Your task to perform on an android device: open app "Google Home" Image 0: 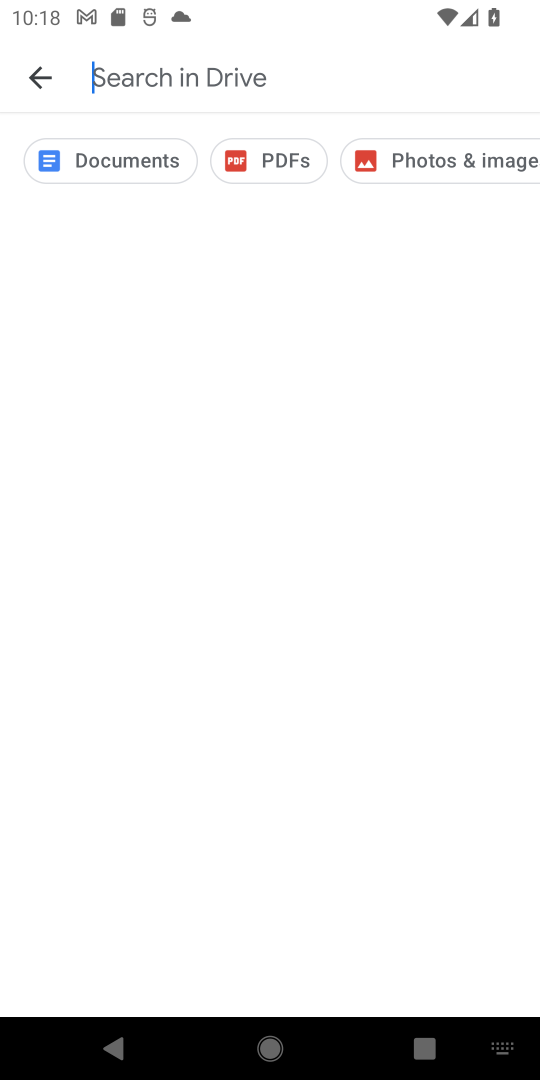
Step 0: press home button
Your task to perform on an android device: open app "Google Home" Image 1: 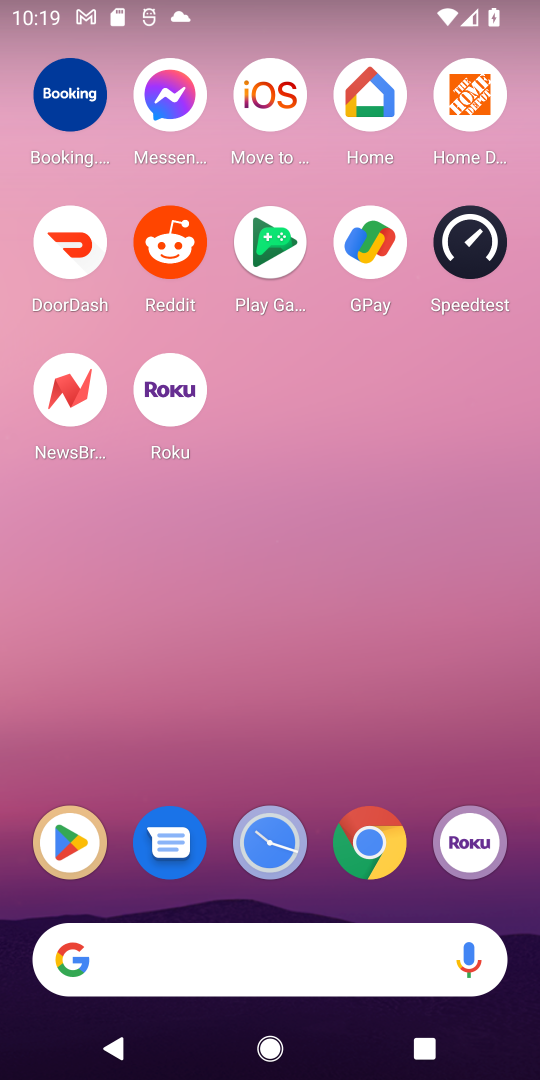
Step 1: click (68, 835)
Your task to perform on an android device: open app "Google Home" Image 2: 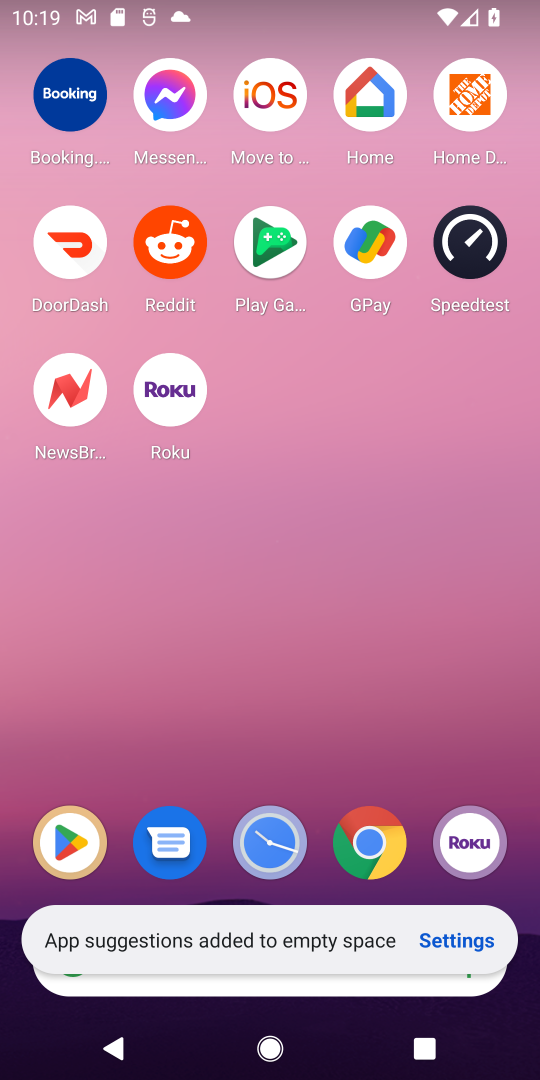
Step 2: click (63, 820)
Your task to perform on an android device: open app "Google Home" Image 3: 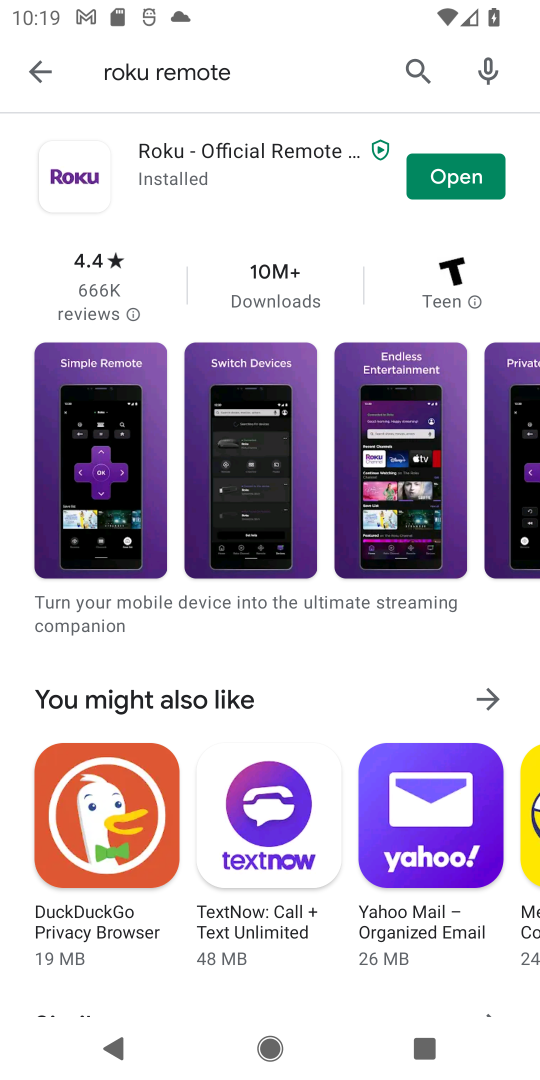
Step 3: click (415, 41)
Your task to perform on an android device: open app "Google Home" Image 4: 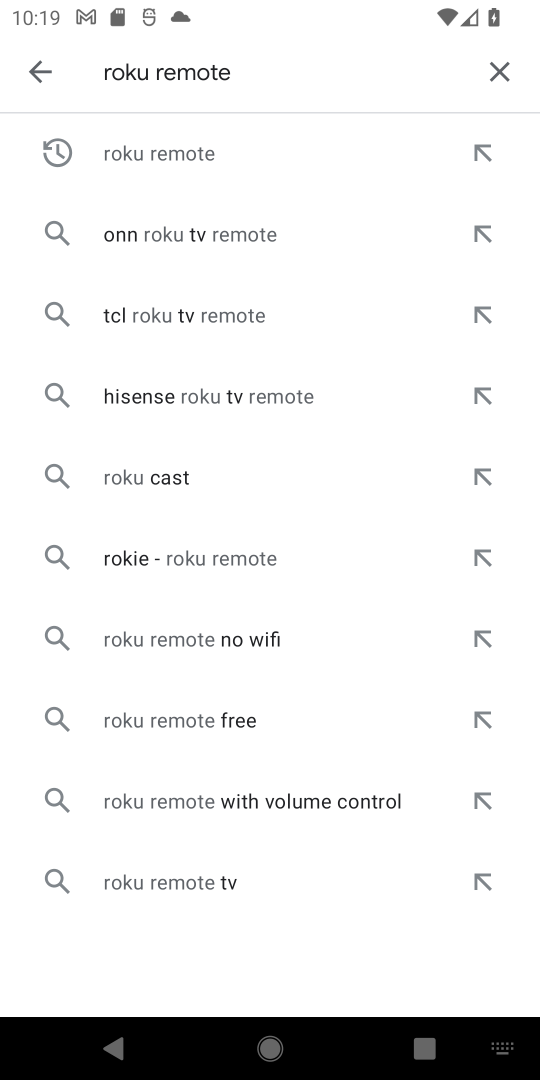
Step 4: click (489, 77)
Your task to perform on an android device: open app "Google Home" Image 5: 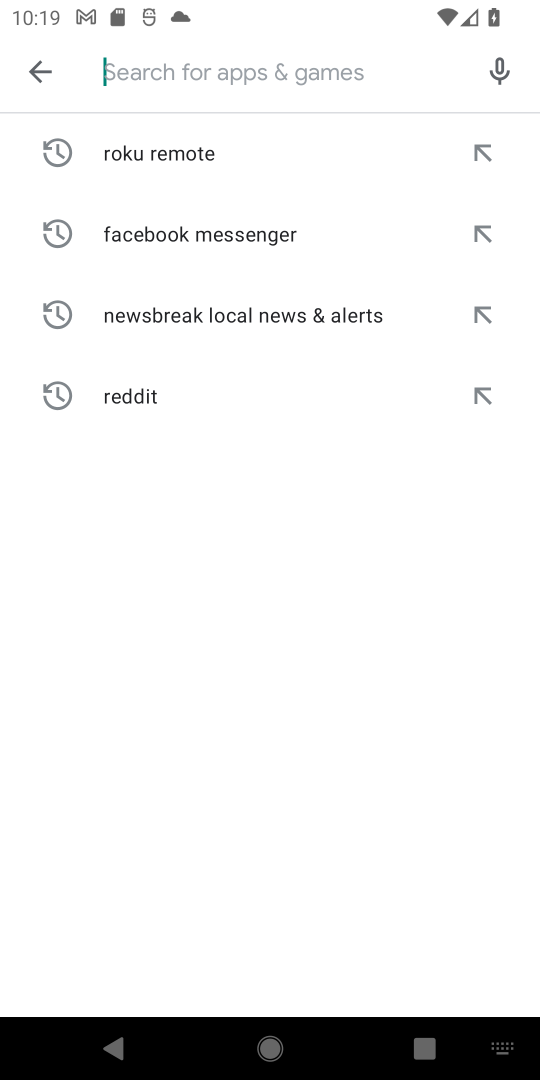
Step 5: click (179, 59)
Your task to perform on an android device: open app "Google Home" Image 6: 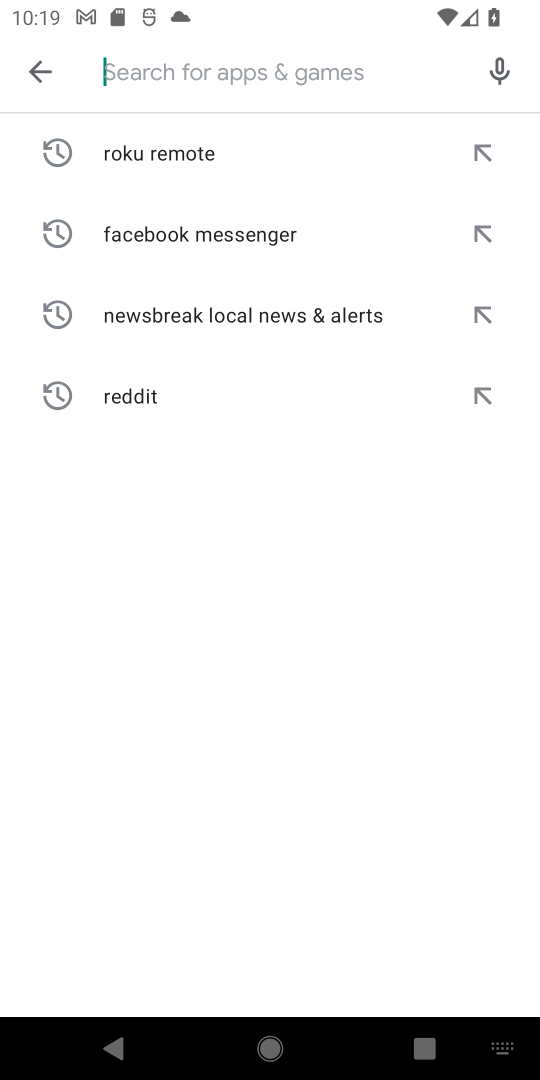
Step 6: type "Google Home"
Your task to perform on an android device: open app "Google Home" Image 7: 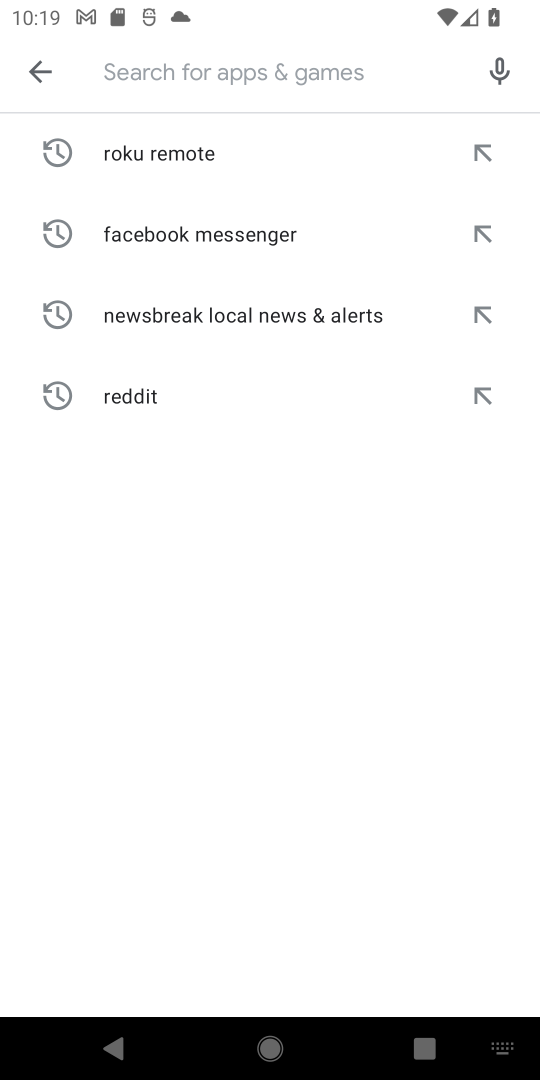
Step 7: click (229, 637)
Your task to perform on an android device: open app "Google Home" Image 8: 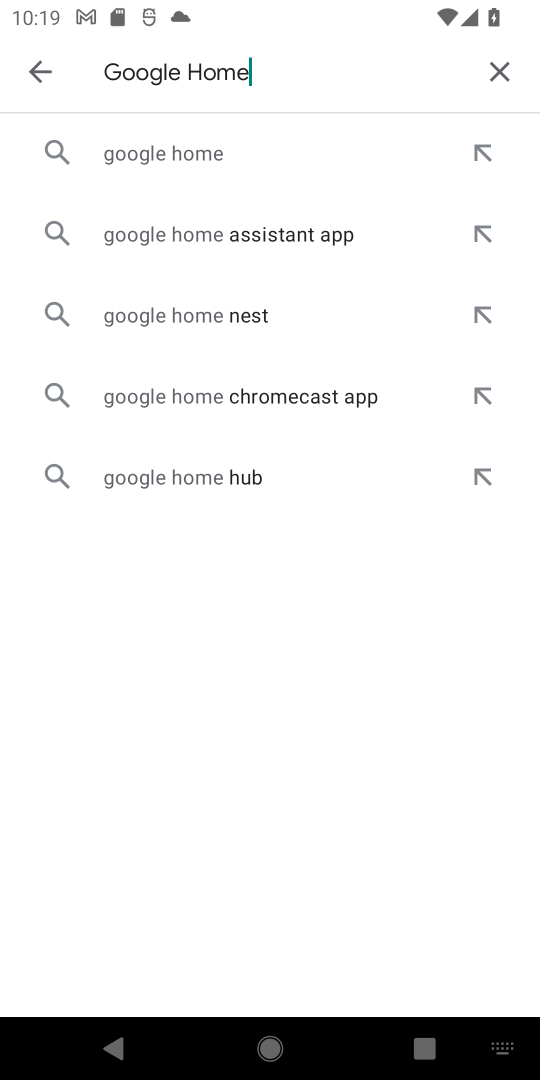
Step 8: click (229, 160)
Your task to perform on an android device: open app "Google Home" Image 9: 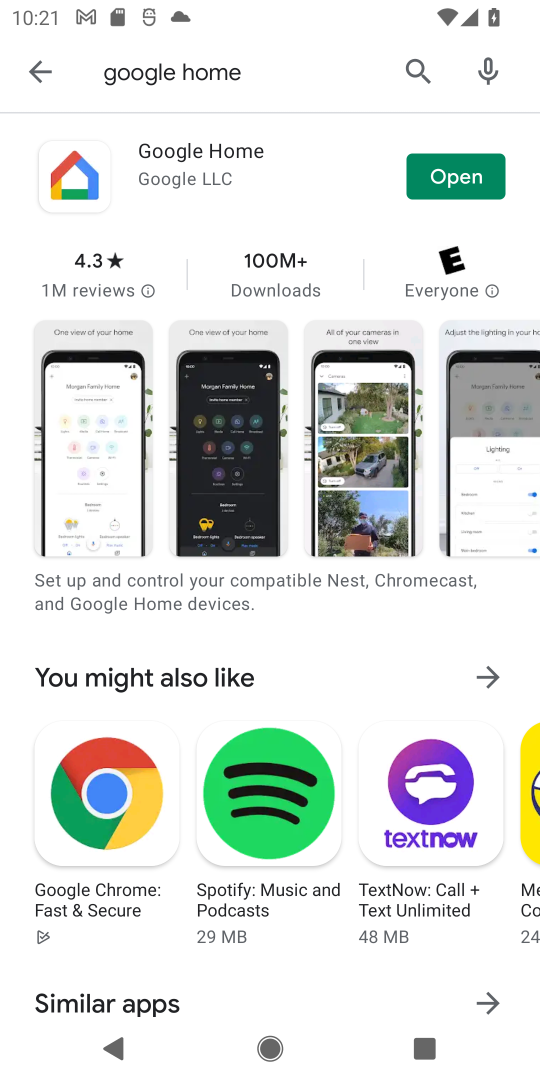
Step 9: click (482, 178)
Your task to perform on an android device: open app "Google Home" Image 10: 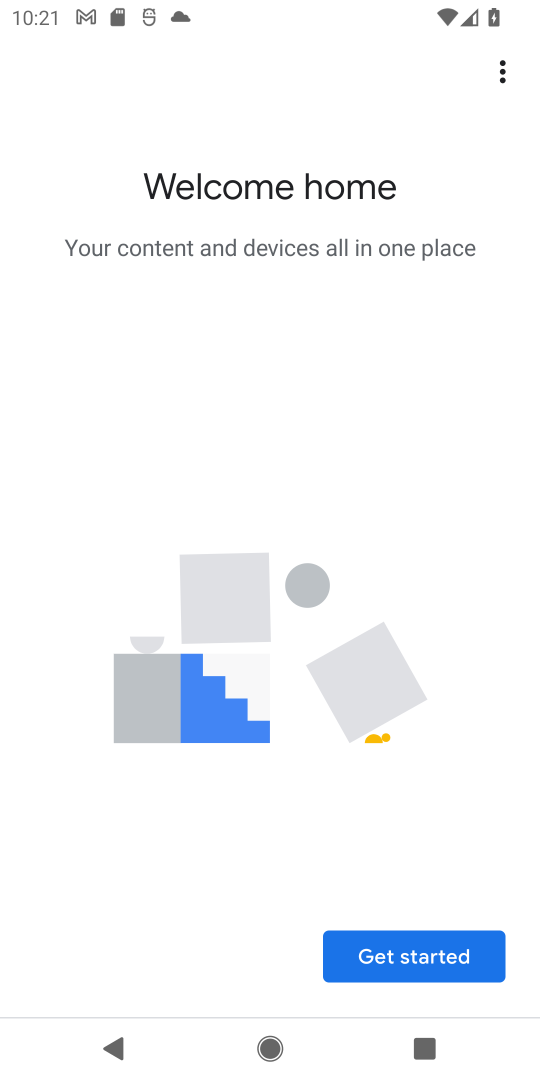
Step 10: task complete